Your task to perform on an android device: Go to settings Image 0: 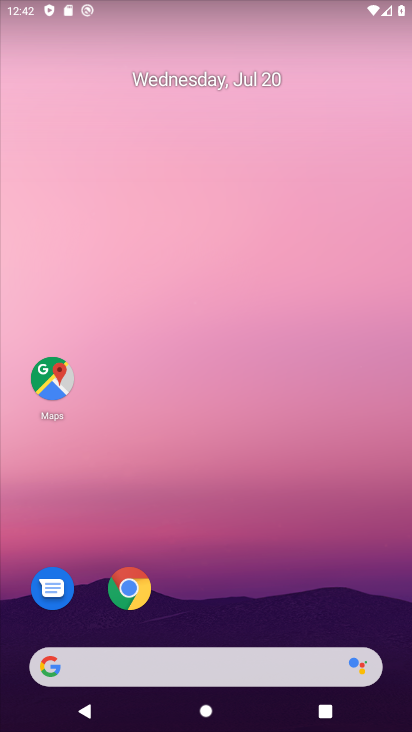
Step 0: press home button
Your task to perform on an android device: Go to settings Image 1: 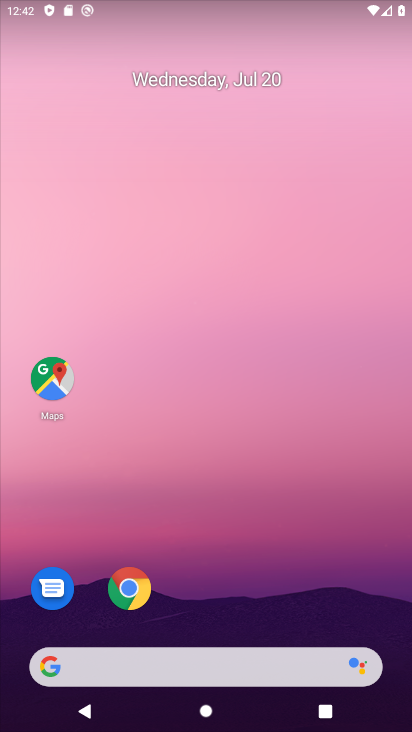
Step 1: drag from (25, 731) to (251, 180)
Your task to perform on an android device: Go to settings Image 2: 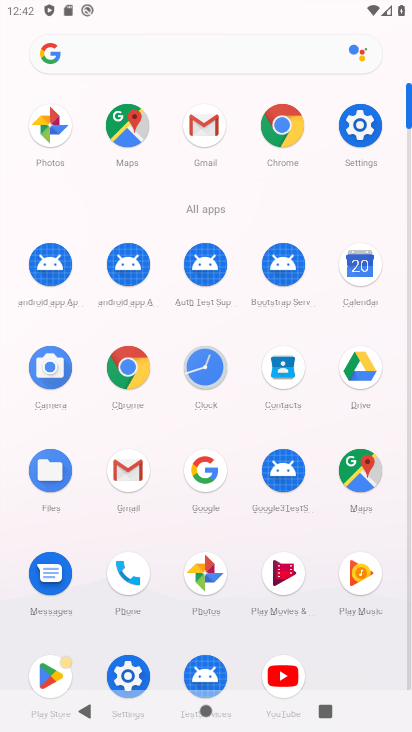
Step 2: click (364, 115)
Your task to perform on an android device: Go to settings Image 3: 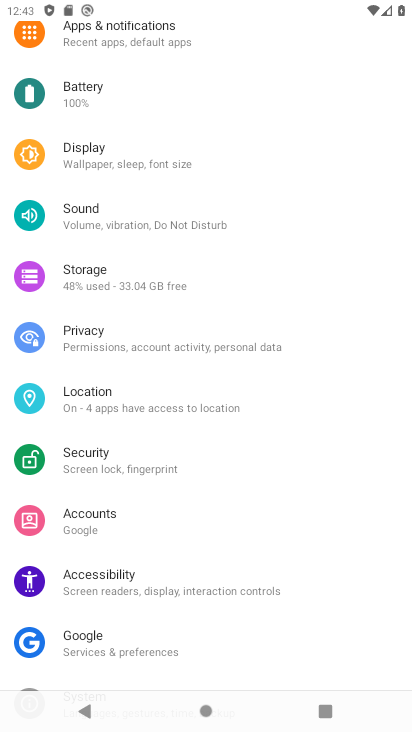
Step 3: task complete